Your task to perform on an android device: add a label to a message in the gmail app Image 0: 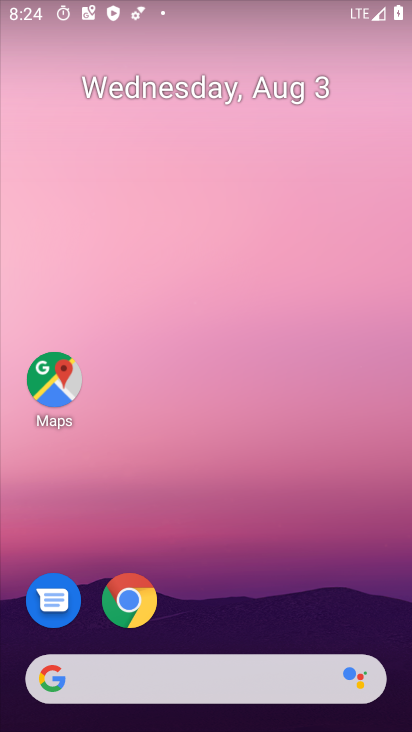
Step 0: click (137, 612)
Your task to perform on an android device: add a label to a message in the gmail app Image 1: 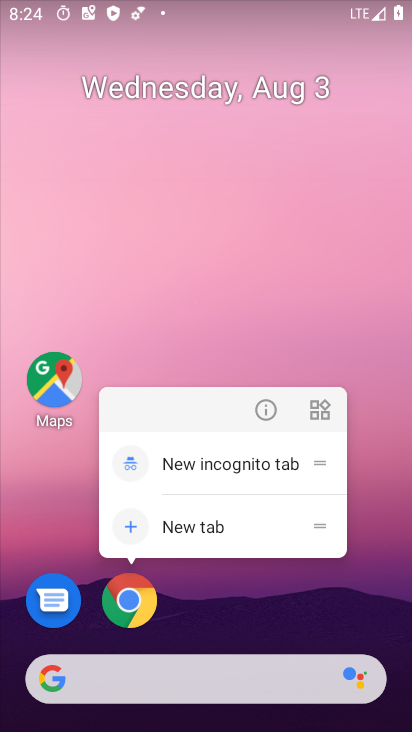
Step 1: click (137, 612)
Your task to perform on an android device: add a label to a message in the gmail app Image 2: 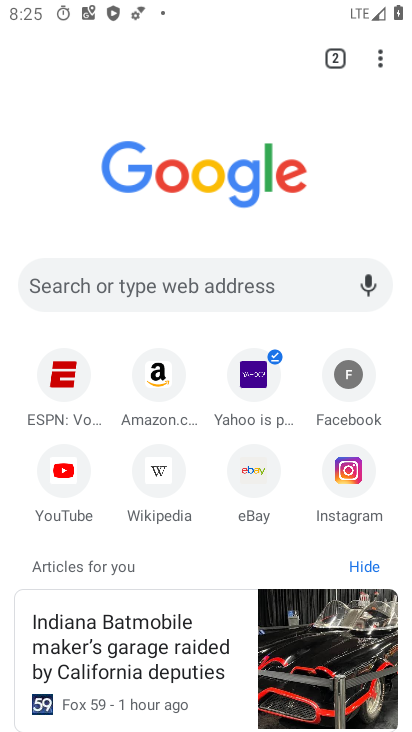
Step 2: press home button
Your task to perform on an android device: add a label to a message in the gmail app Image 3: 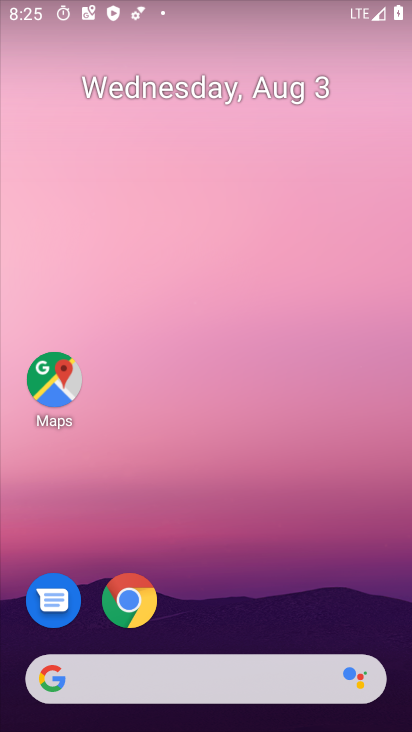
Step 3: drag from (188, 624) to (200, 8)
Your task to perform on an android device: add a label to a message in the gmail app Image 4: 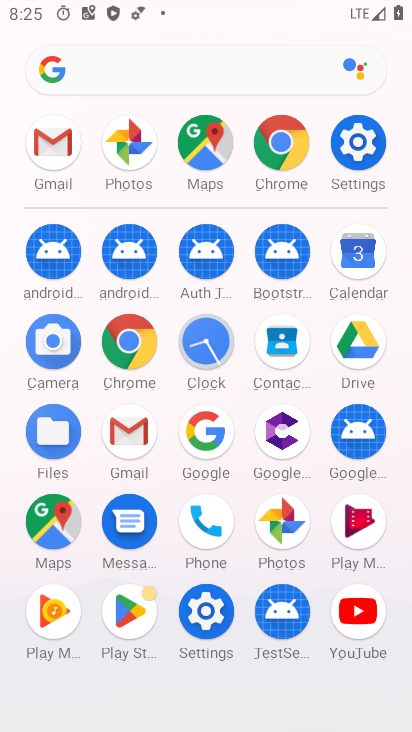
Step 4: click (124, 459)
Your task to perform on an android device: add a label to a message in the gmail app Image 5: 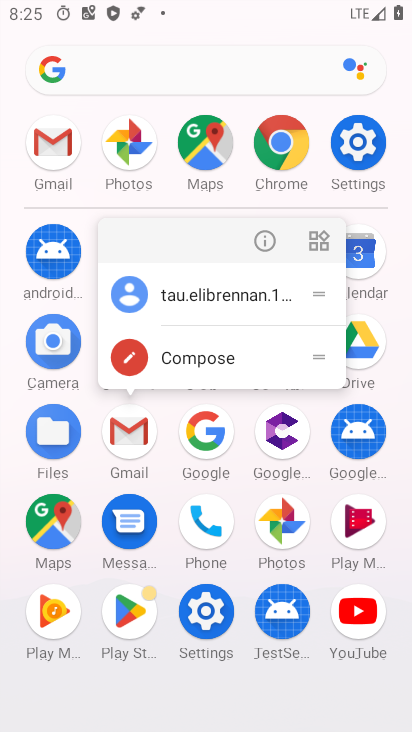
Step 5: click (128, 435)
Your task to perform on an android device: add a label to a message in the gmail app Image 6: 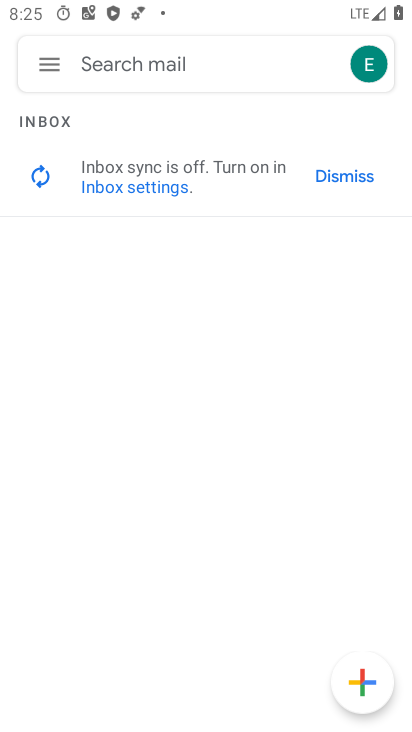
Step 6: task complete